Your task to perform on an android device: How much does a 2 bedroom apartment rent for in New York? Image 0: 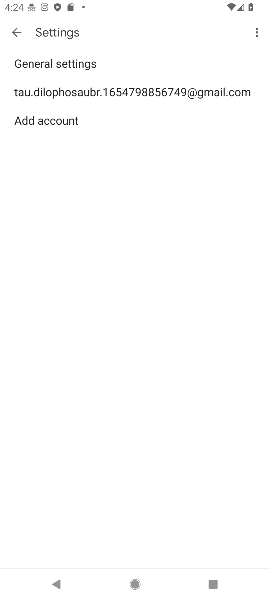
Step 0: press home button
Your task to perform on an android device: How much does a 2 bedroom apartment rent for in New York? Image 1: 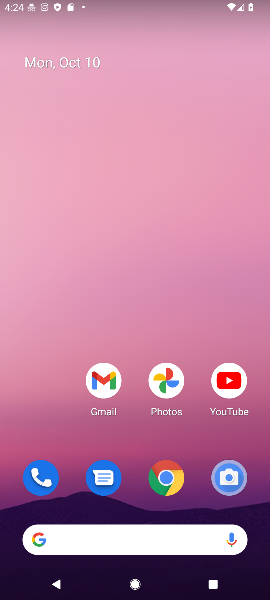
Step 1: click (161, 470)
Your task to perform on an android device: How much does a 2 bedroom apartment rent for in New York? Image 2: 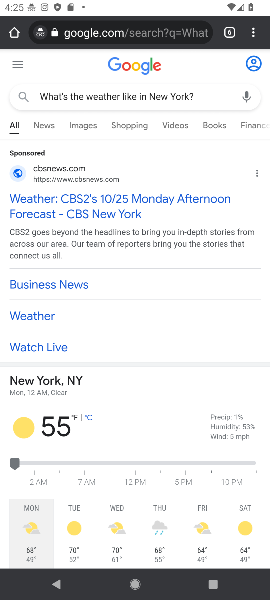
Step 2: click (227, 97)
Your task to perform on an android device: How much does a 2 bedroom apartment rent for in New York? Image 3: 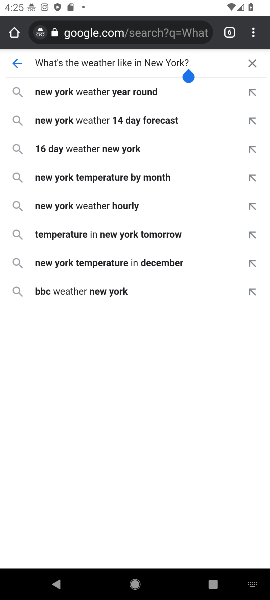
Step 3: click (253, 63)
Your task to perform on an android device: How much does a 2 bedroom apartment rent for in New York? Image 4: 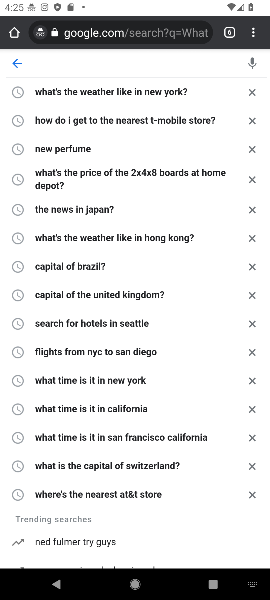
Step 4: type "How much does a 2 bedroom apartment rent for in New York?"
Your task to perform on an android device: How much does a 2 bedroom apartment rent for in New York? Image 5: 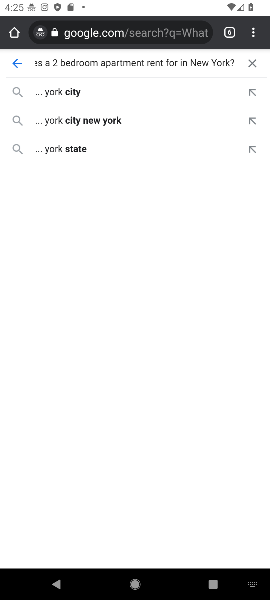
Step 5: click (108, 98)
Your task to perform on an android device: How much does a 2 bedroom apartment rent for in New York? Image 6: 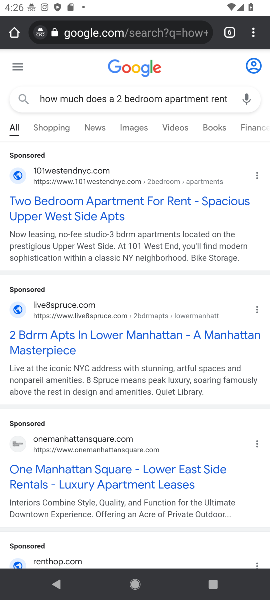
Step 6: drag from (109, 490) to (207, 9)
Your task to perform on an android device: How much does a 2 bedroom apartment rent for in New York? Image 7: 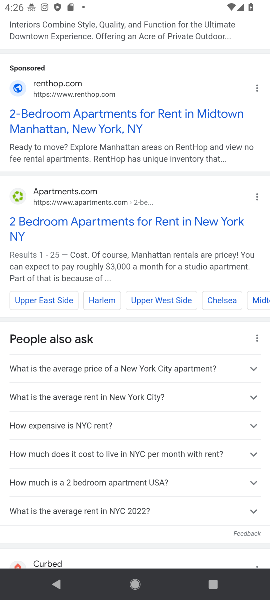
Step 7: drag from (63, 518) to (133, 193)
Your task to perform on an android device: How much does a 2 bedroom apartment rent for in New York? Image 8: 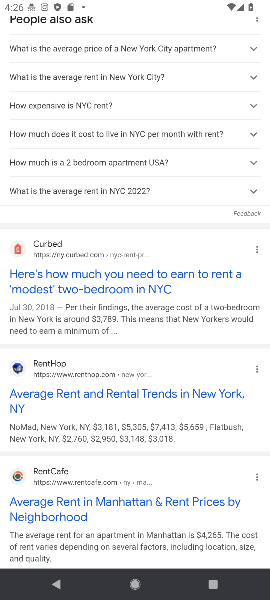
Step 8: click (68, 289)
Your task to perform on an android device: How much does a 2 bedroom apartment rent for in New York? Image 9: 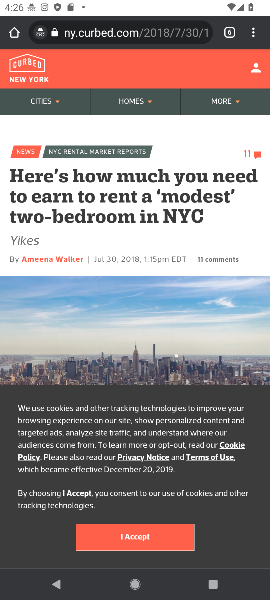
Step 9: click (120, 540)
Your task to perform on an android device: How much does a 2 bedroom apartment rent for in New York? Image 10: 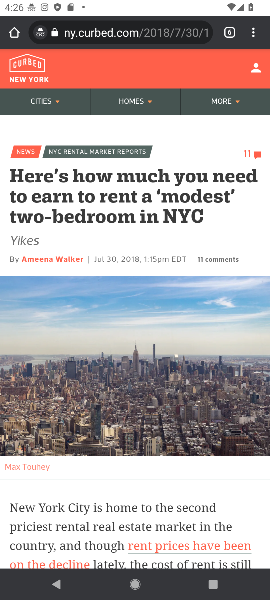
Step 10: task complete